Your task to perform on an android device: change your default location settings in chrome Image 0: 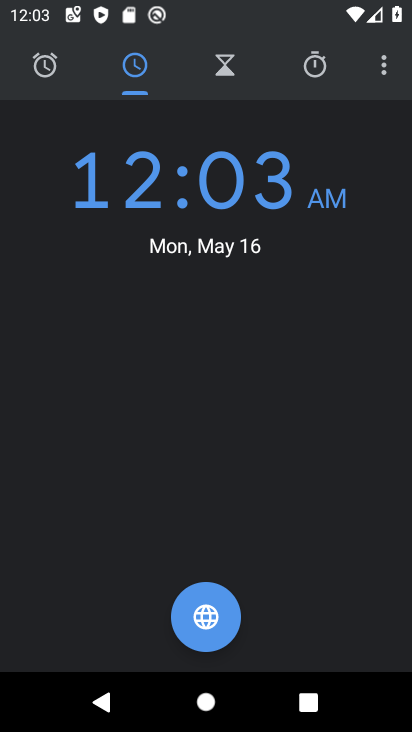
Step 0: press home button
Your task to perform on an android device: change your default location settings in chrome Image 1: 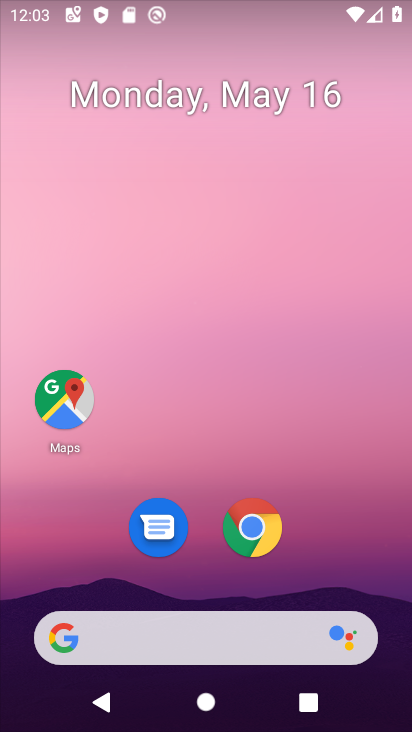
Step 1: click (254, 540)
Your task to perform on an android device: change your default location settings in chrome Image 2: 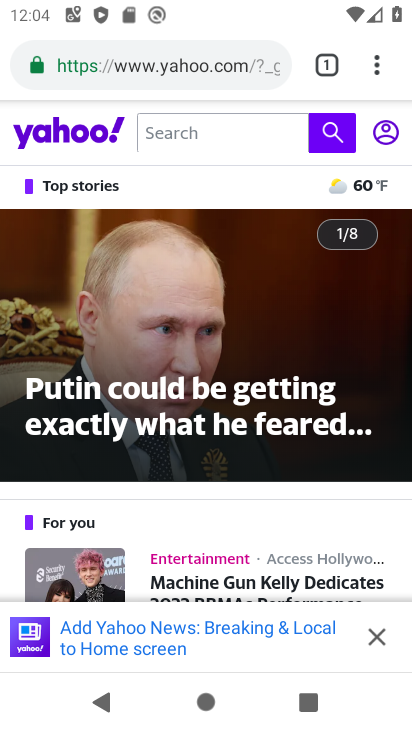
Step 2: click (369, 631)
Your task to perform on an android device: change your default location settings in chrome Image 3: 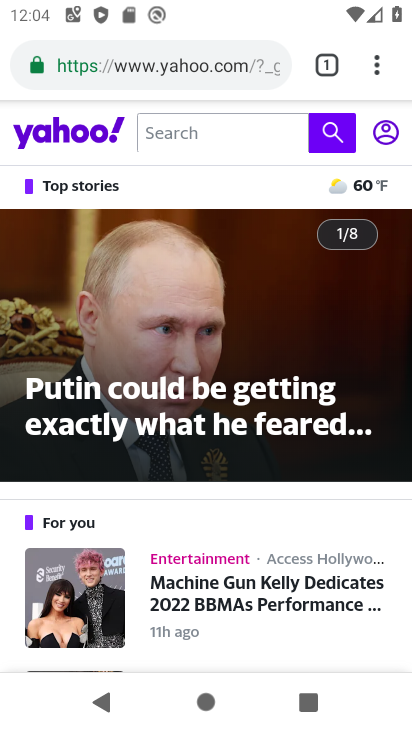
Step 3: click (375, 64)
Your task to perform on an android device: change your default location settings in chrome Image 4: 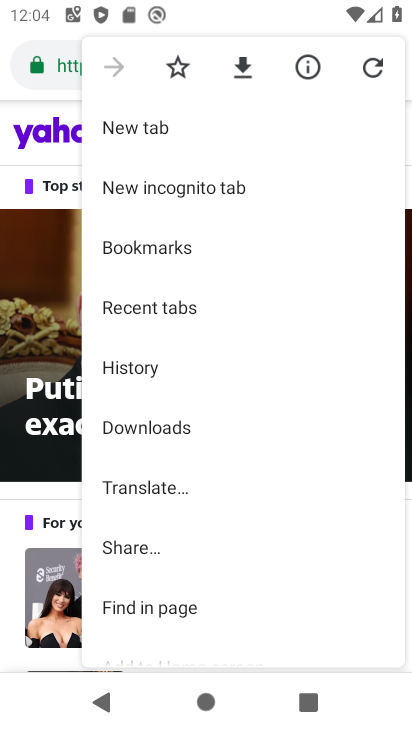
Step 4: drag from (166, 496) to (212, 206)
Your task to perform on an android device: change your default location settings in chrome Image 5: 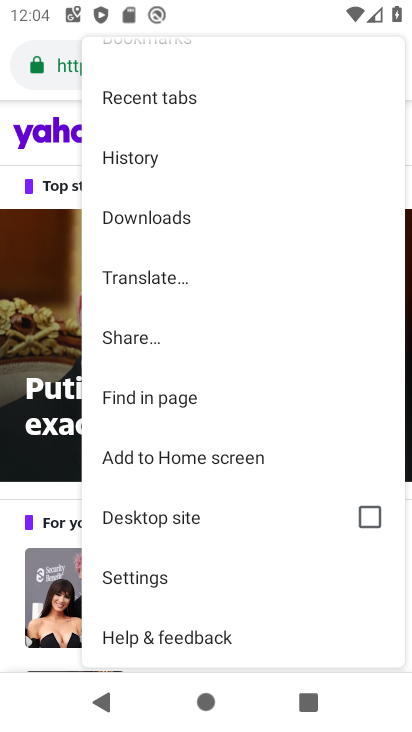
Step 5: click (152, 579)
Your task to perform on an android device: change your default location settings in chrome Image 6: 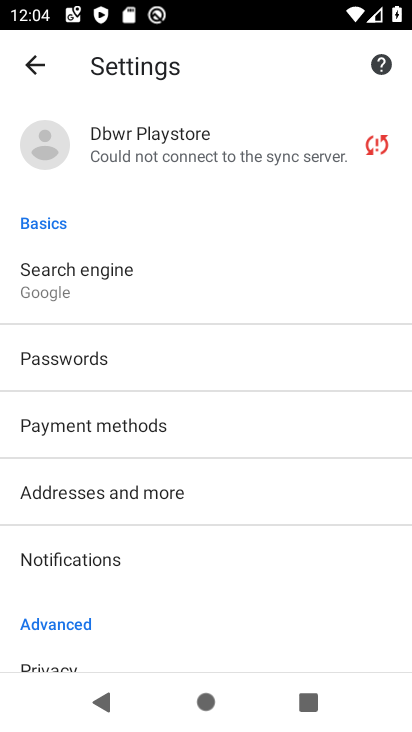
Step 6: drag from (115, 578) to (223, 237)
Your task to perform on an android device: change your default location settings in chrome Image 7: 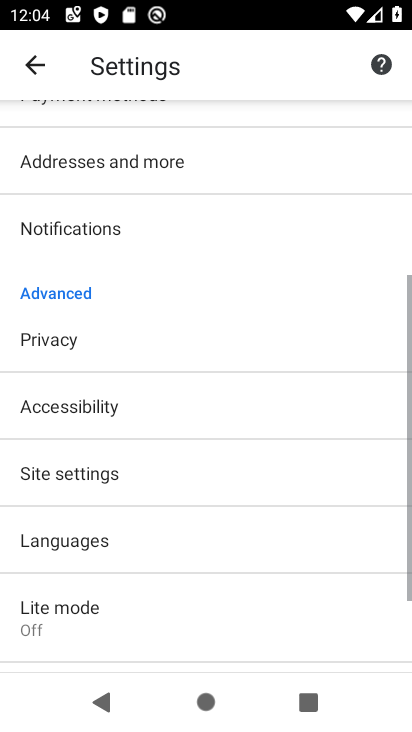
Step 7: click (102, 475)
Your task to perform on an android device: change your default location settings in chrome Image 8: 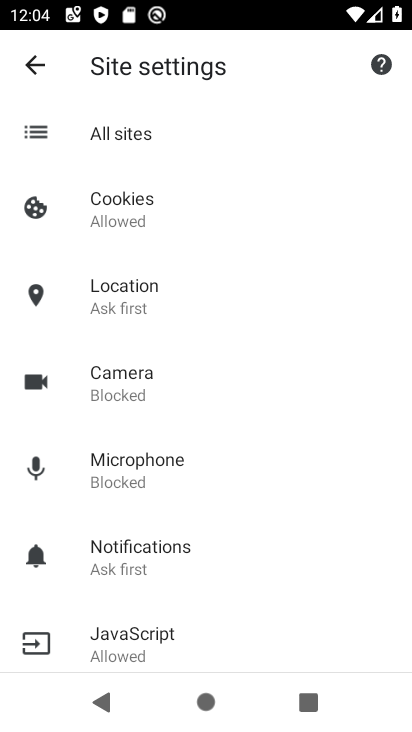
Step 8: click (144, 296)
Your task to perform on an android device: change your default location settings in chrome Image 9: 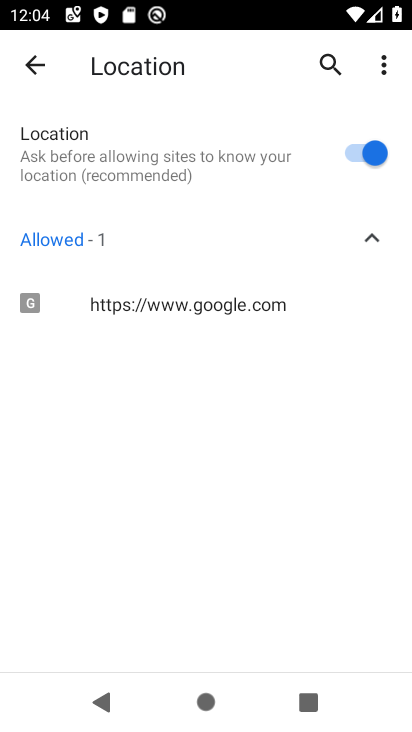
Step 9: click (356, 155)
Your task to perform on an android device: change your default location settings in chrome Image 10: 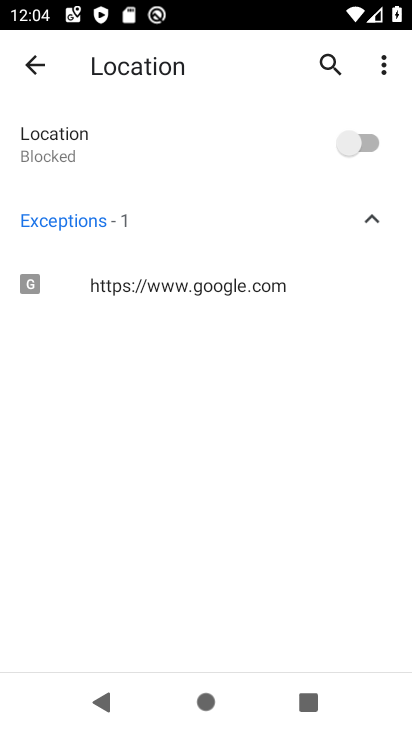
Step 10: task complete